Your task to perform on an android device: allow notifications from all sites in the chrome app Image 0: 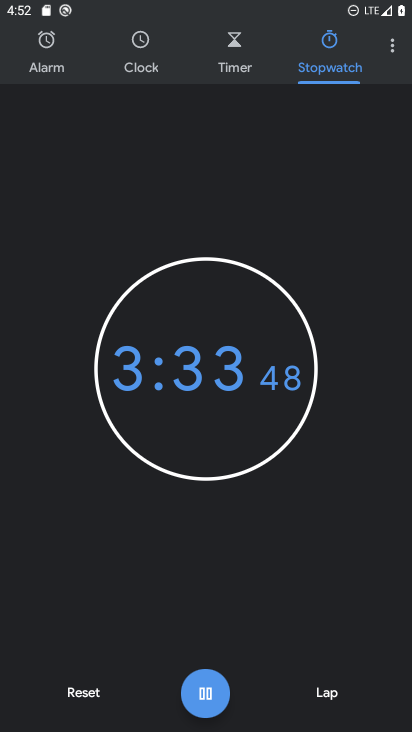
Step 0: press home button
Your task to perform on an android device: allow notifications from all sites in the chrome app Image 1: 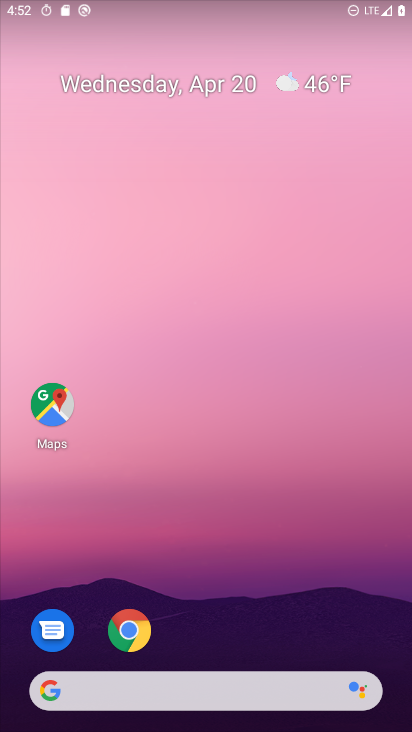
Step 1: drag from (317, 639) to (303, 51)
Your task to perform on an android device: allow notifications from all sites in the chrome app Image 2: 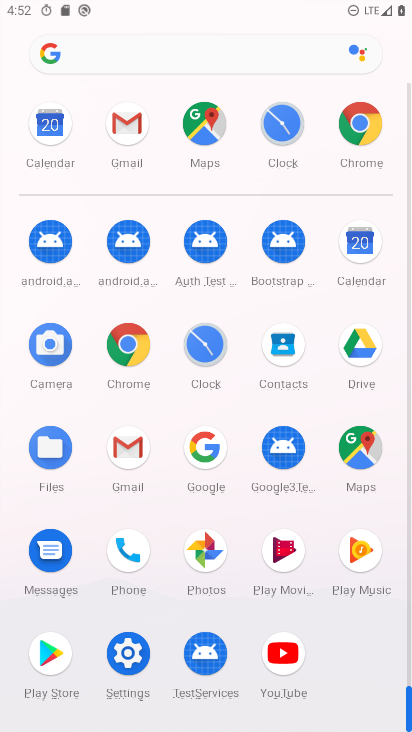
Step 2: click (127, 342)
Your task to perform on an android device: allow notifications from all sites in the chrome app Image 3: 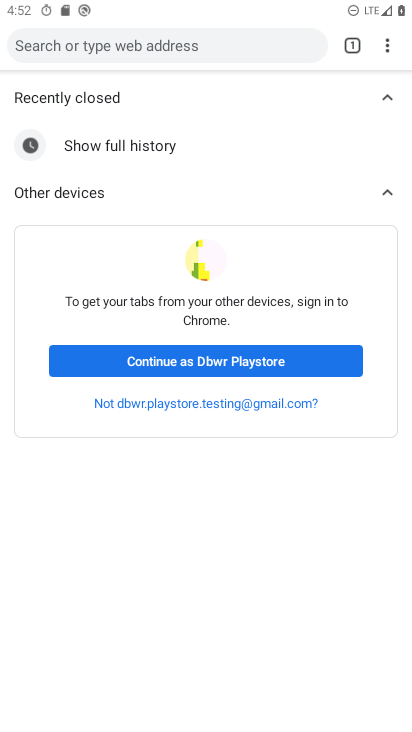
Step 3: click (389, 47)
Your task to perform on an android device: allow notifications from all sites in the chrome app Image 4: 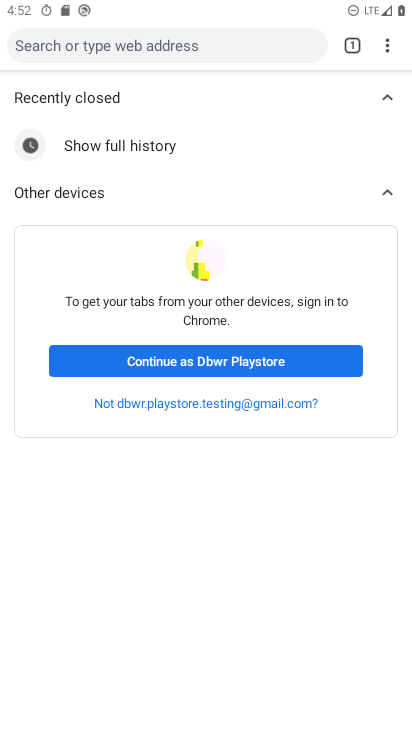
Step 4: click (386, 44)
Your task to perform on an android device: allow notifications from all sites in the chrome app Image 5: 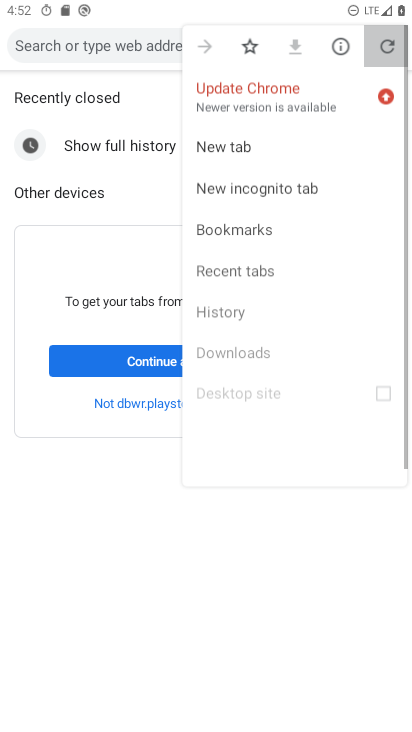
Step 5: drag from (386, 44) to (233, 441)
Your task to perform on an android device: allow notifications from all sites in the chrome app Image 6: 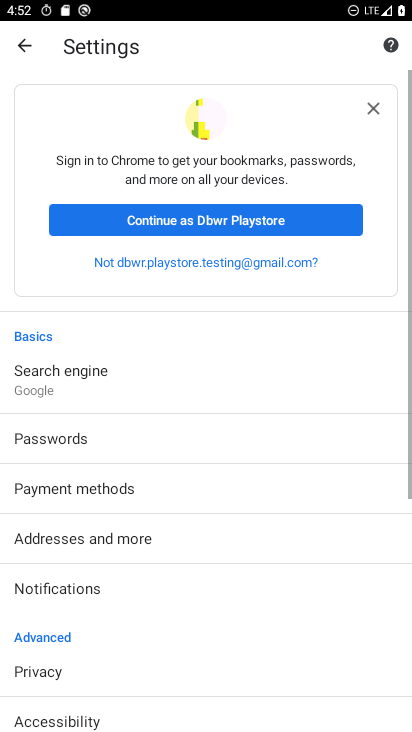
Step 6: drag from (185, 509) to (184, 105)
Your task to perform on an android device: allow notifications from all sites in the chrome app Image 7: 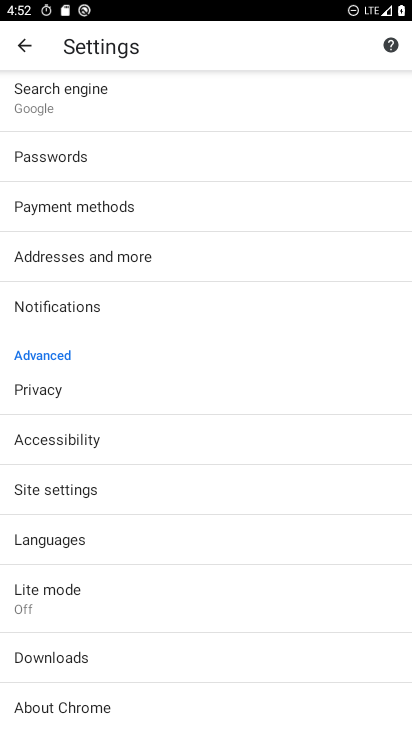
Step 7: click (107, 494)
Your task to perform on an android device: allow notifications from all sites in the chrome app Image 8: 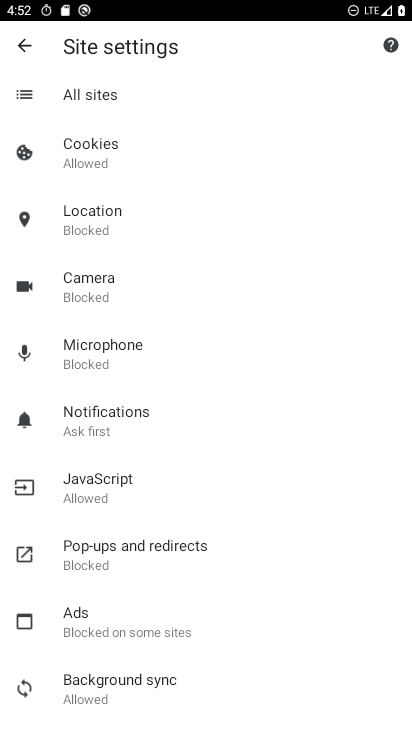
Step 8: click (152, 419)
Your task to perform on an android device: allow notifications from all sites in the chrome app Image 9: 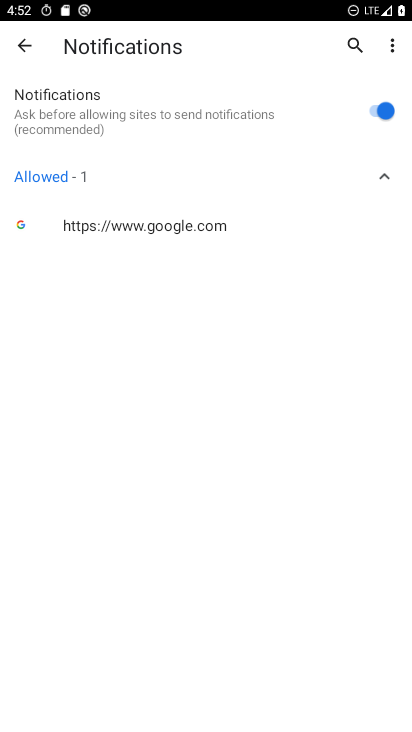
Step 9: task complete